Your task to perform on an android device: Open Amazon Image 0: 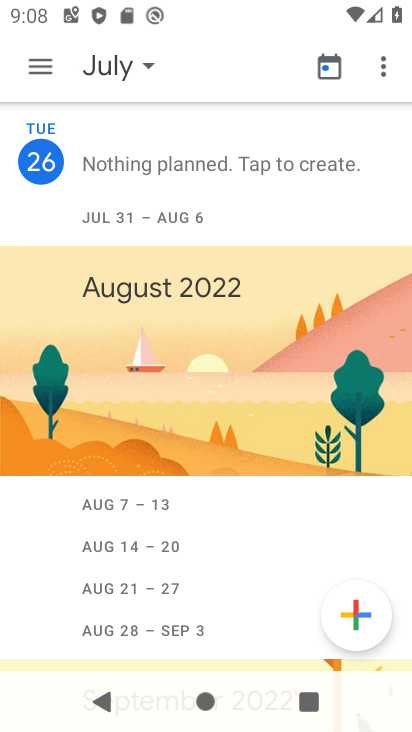
Step 0: press home button
Your task to perform on an android device: Open Amazon Image 1: 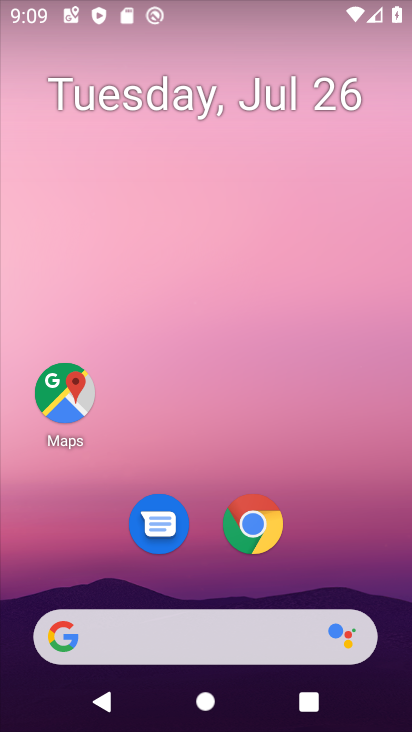
Step 1: click (246, 528)
Your task to perform on an android device: Open Amazon Image 2: 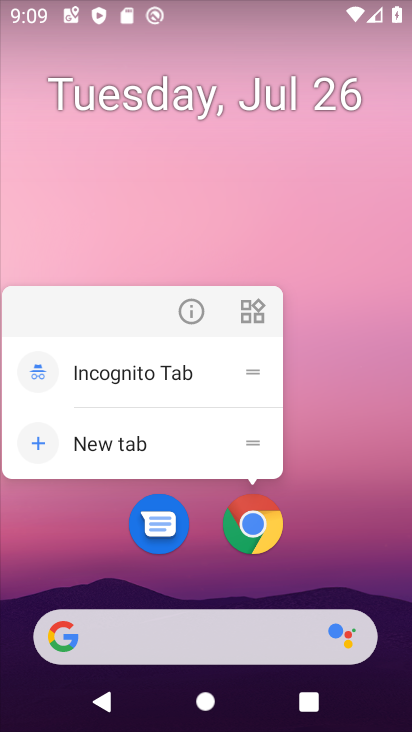
Step 2: click (283, 488)
Your task to perform on an android device: Open Amazon Image 3: 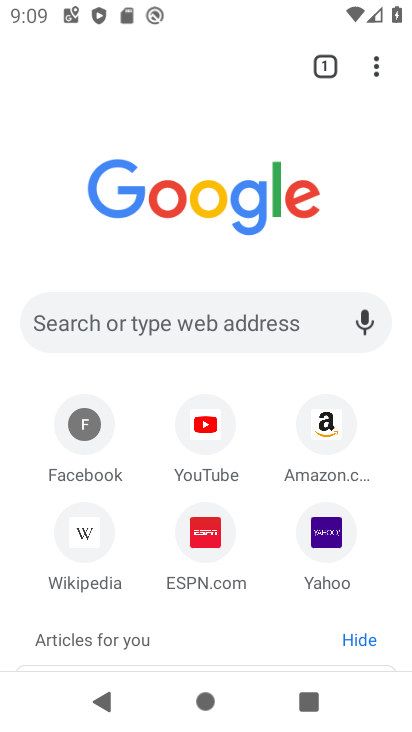
Step 3: click (332, 418)
Your task to perform on an android device: Open Amazon Image 4: 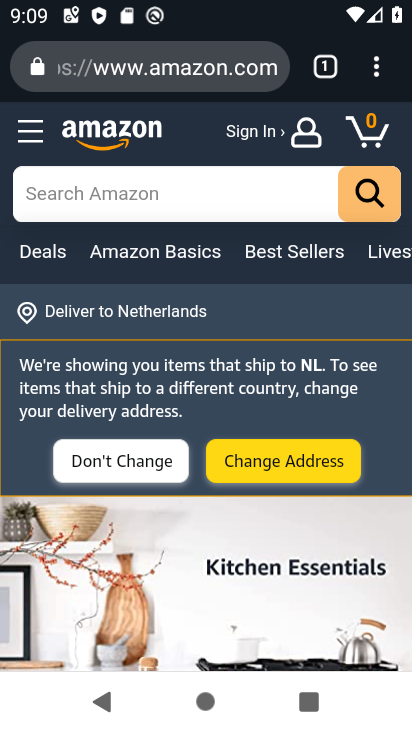
Step 4: task complete